Your task to perform on an android device: When is my next appointment? Image 0: 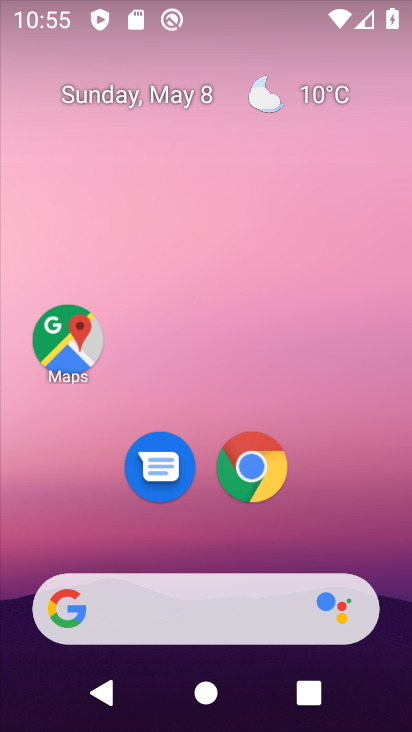
Step 0: drag from (382, 549) to (339, 222)
Your task to perform on an android device: When is my next appointment? Image 1: 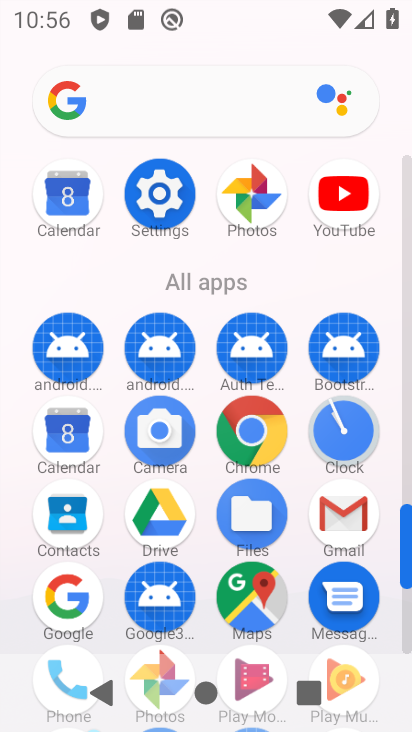
Step 1: click (70, 436)
Your task to perform on an android device: When is my next appointment? Image 2: 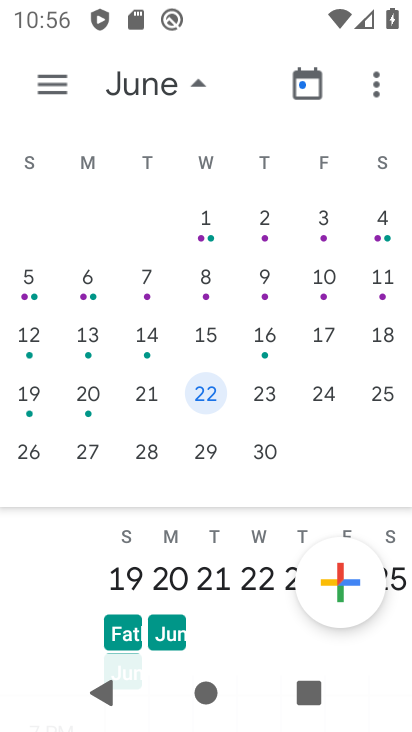
Step 2: click (55, 83)
Your task to perform on an android device: When is my next appointment? Image 3: 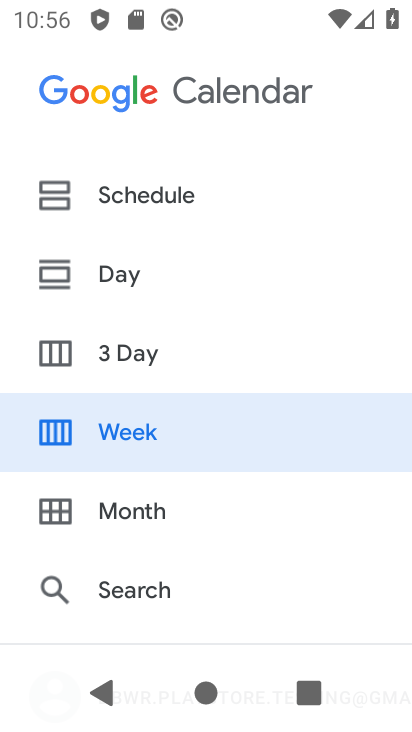
Step 3: click (130, 212)
Your task to perform on an android device: When is my next appointment? Image 4: 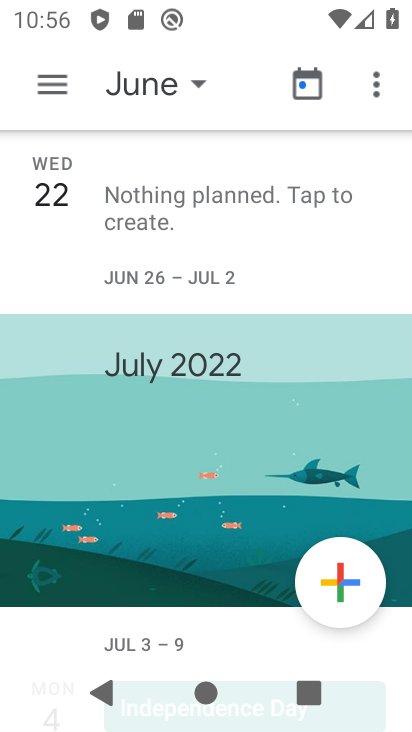
Step 4: click (179, 94)
Your task to perform on an android device: When is my next appointment? Image 5: 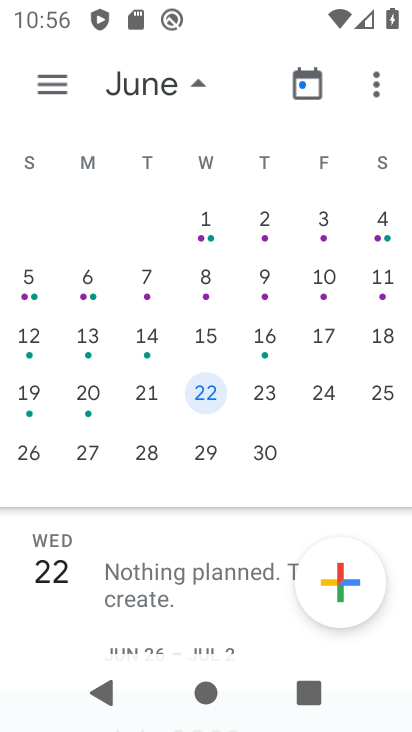
Step 5: drag from (110, 317) to (383, 283)
Your task to perform on an android device: When is my next appointment? Image 6: 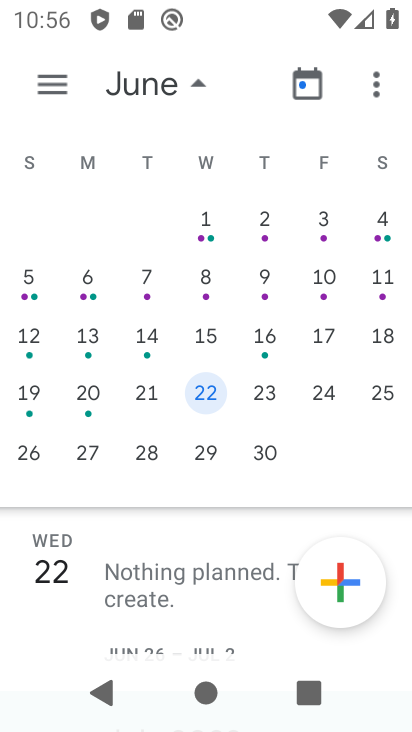
Step 6: drag from (108, 357) to (391, 294)
Your task to perform on an android device: When is my next appointment? Image 7: 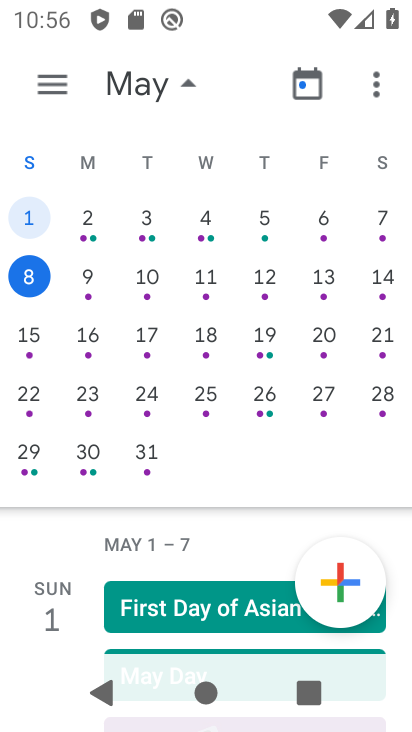
Step 7: click (82, 279)
Your task to perform on an android device: When is my next appointment? Image 8: 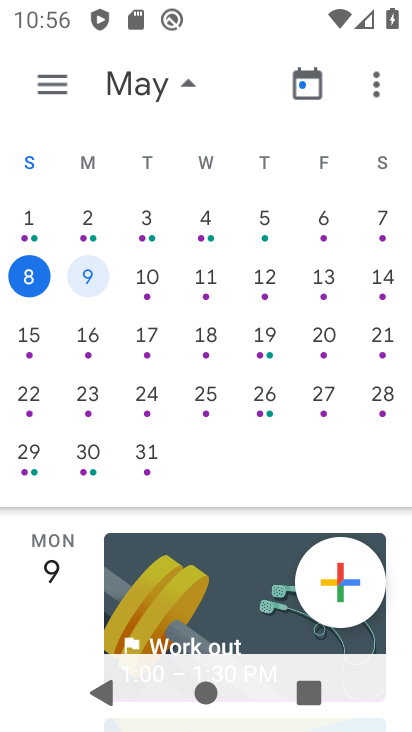
Step 8: click (182, 90)
Your task to perform on an android device: When is my next appointment? Image 9: 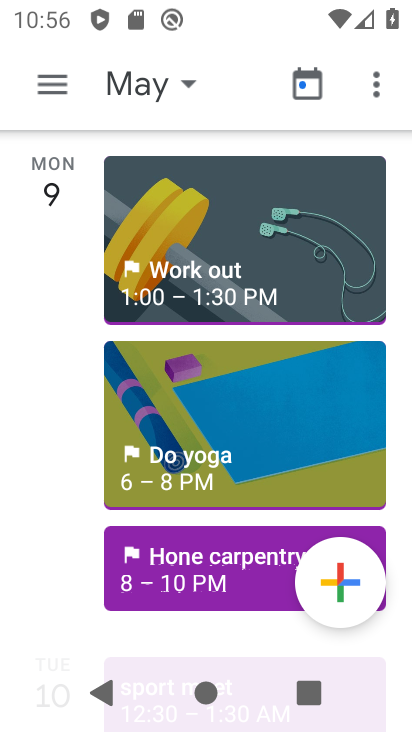
Step 9: task complete